Your task to perform on an android device: open app "Google Docs" Image 0: 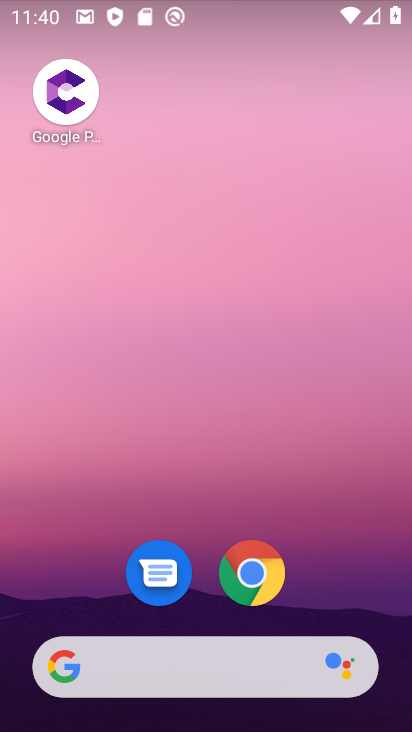
Step 0: drag from (270, 632) to (258, 0)
Your task to perform on an android device: open app "Google Docs" Image 1: 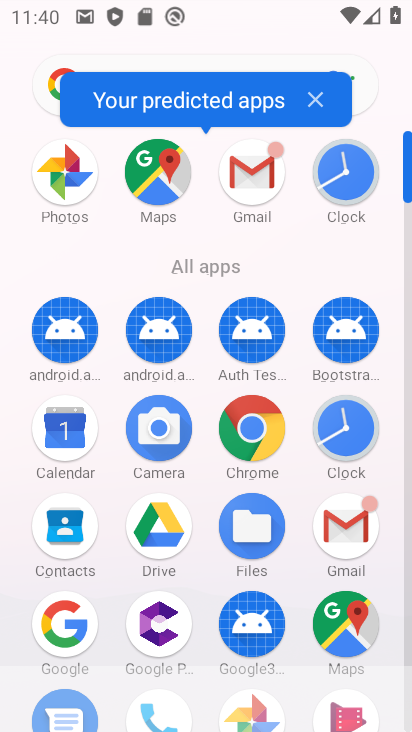
Step 1: drag from (296, 593) to (296, 293)
Your task to perform on an android device: open app "Google Docs" Image 2: 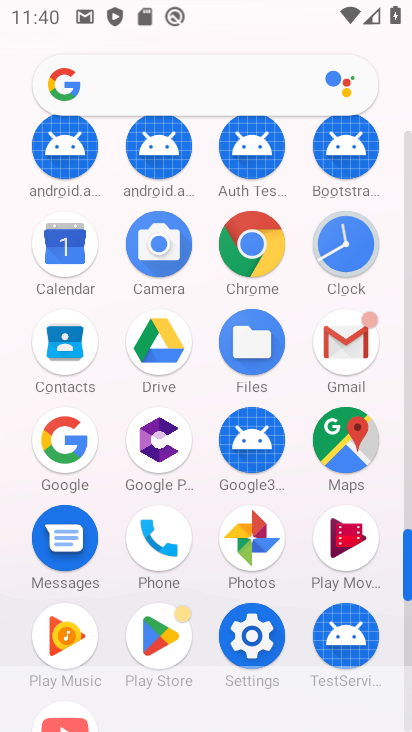
Step 2: click (158, 650)
Your task to perform on an android device: open app "Google Docs" Image 3: 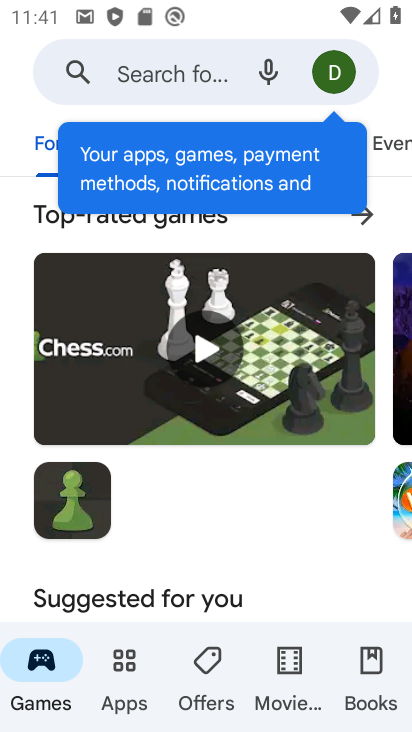
Step 3: click (185, 71)
Your task to perform on an android device: open app "Google Docs" Image 4: 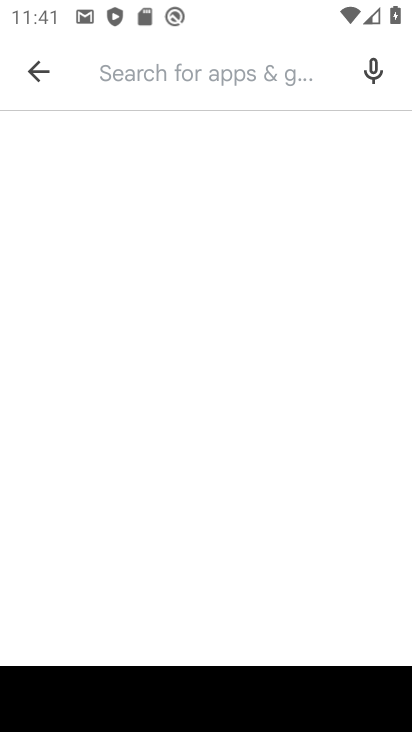
Step 4: type "Google docs"
Your task to perform on an android device: open app "Google Docs" Image 5: 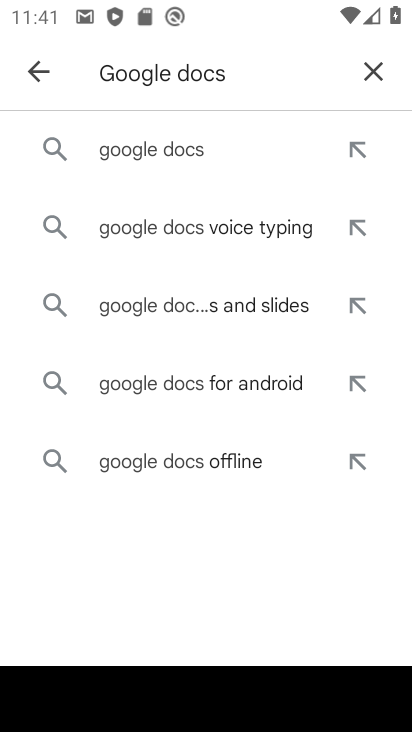
Step 5: click (174, 150)
Your task to perform on an android device: open app "Google Docs" Image 6: 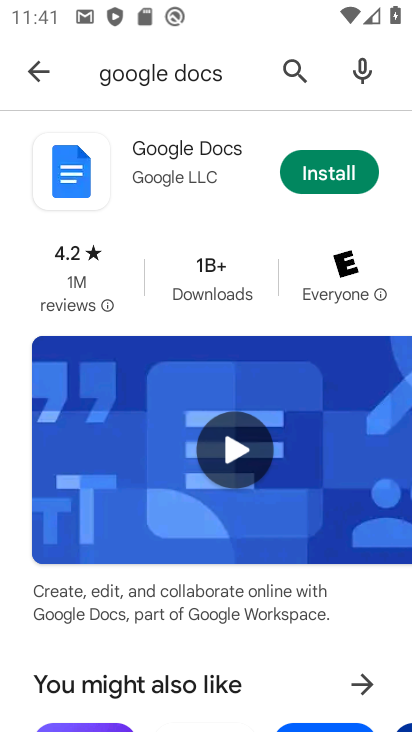
Step 6: task complete